Your task to perform on an android device: turn on location history Image 0: 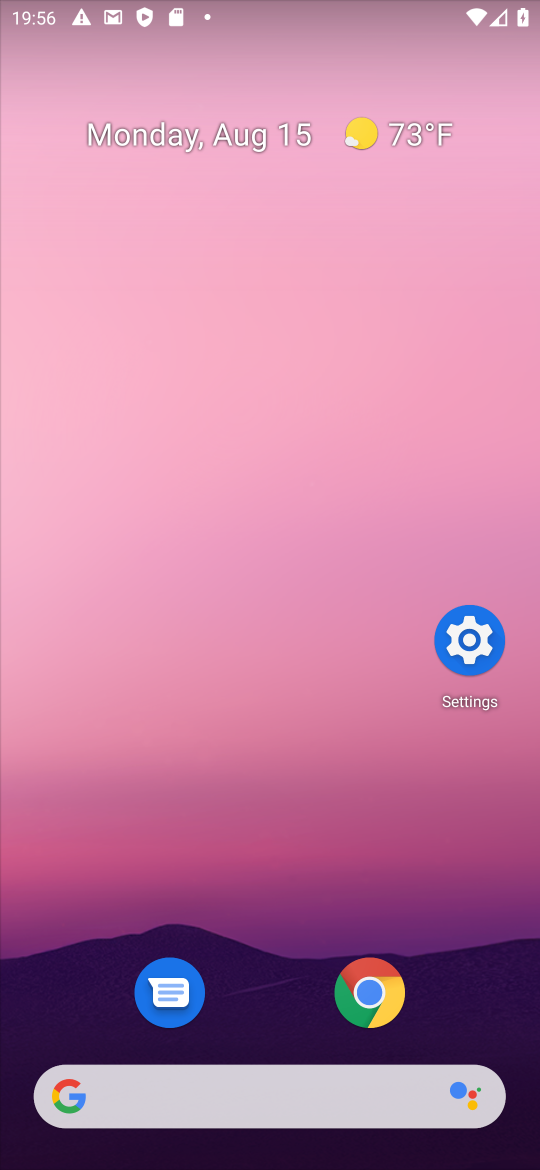
Step 0: click (477, 634)
Your task to perform on an android device: turn on location history Image 1: 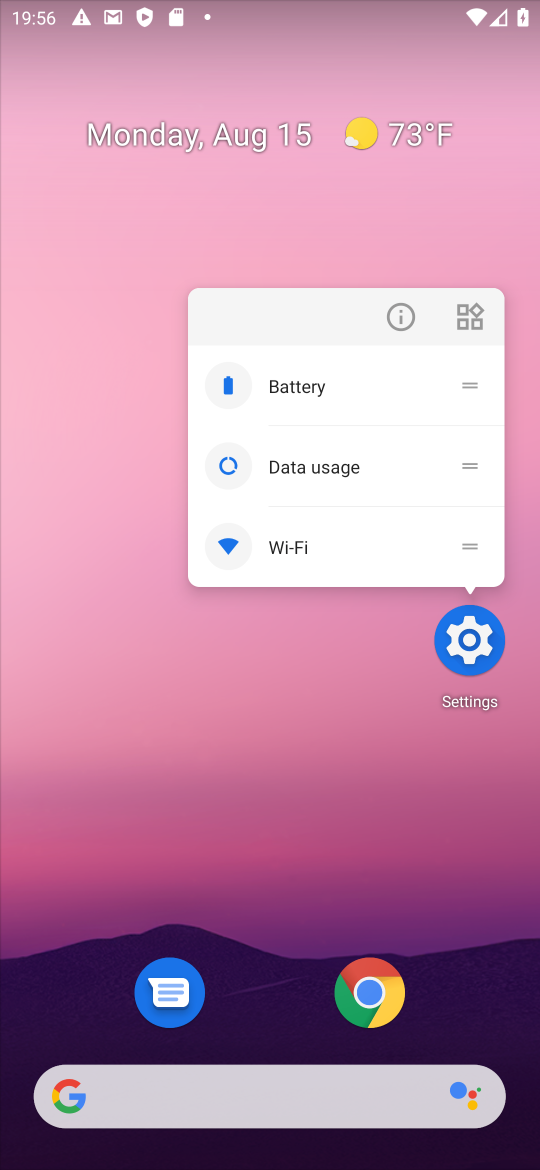
Step 1: click (475, 634)
Your task to perform on an android device: turn on location history Image 2: 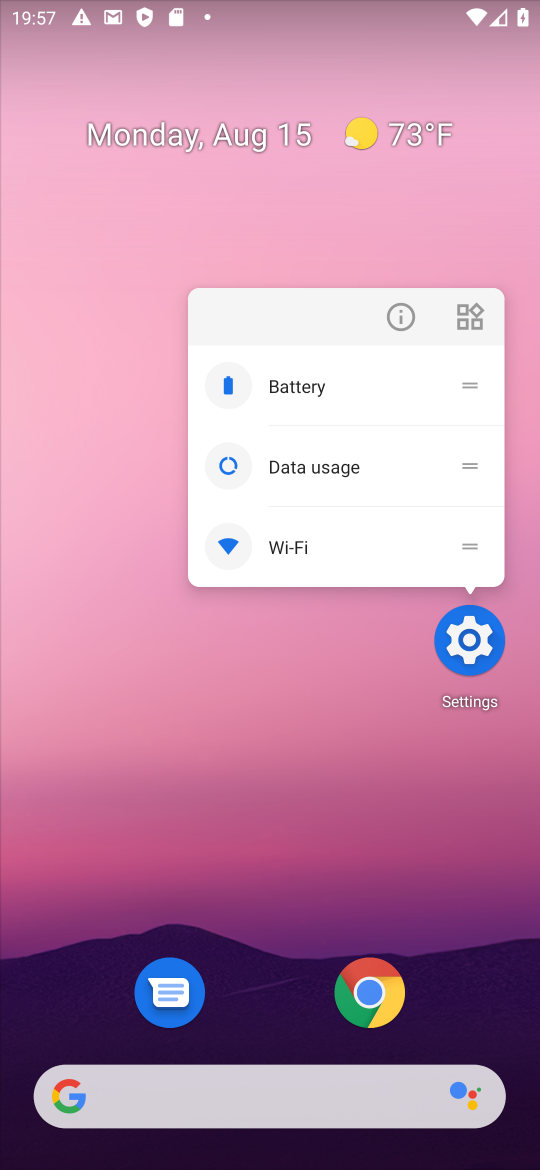
Step 2: click (475, 635)
Your task to perform on an android device: turn on location history Image 3: 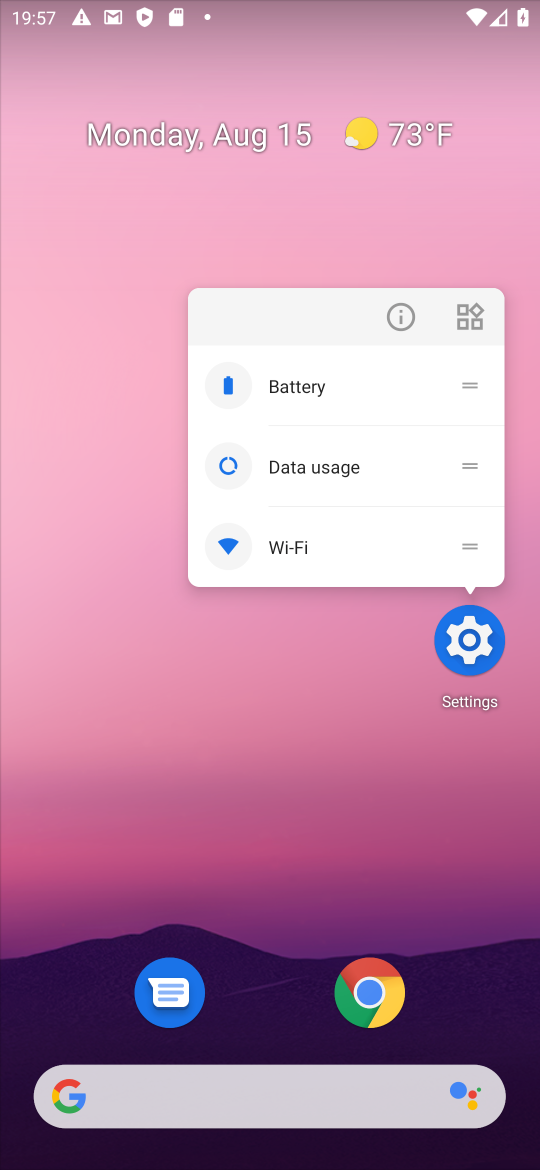
Step 3: click (477, 644)
Your task to perform on an android device: turn on location history Image 4: 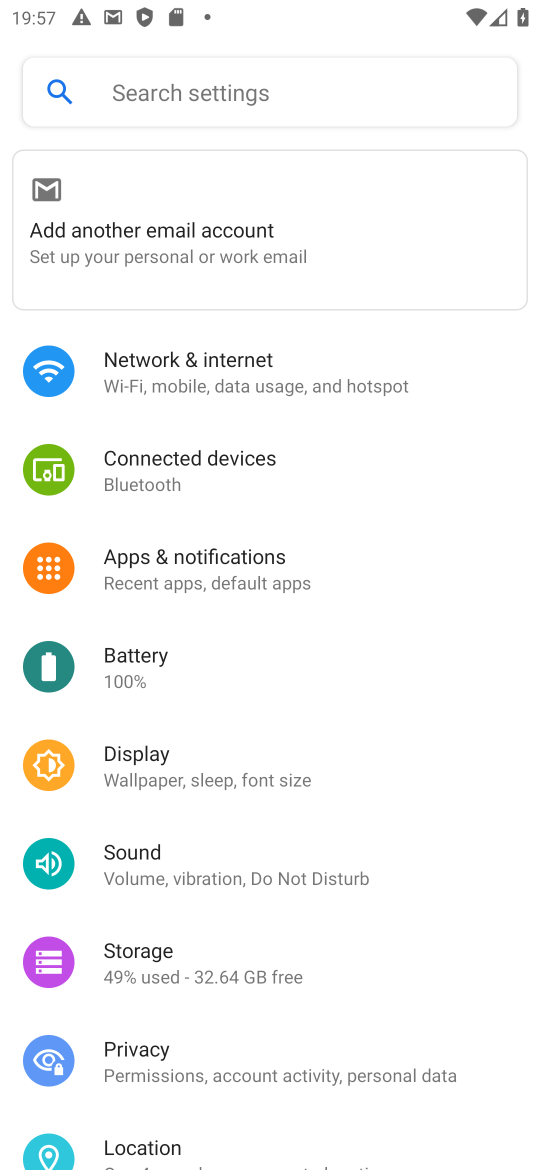
Step 4: drag from (325, 961) to (388, 221)
Your task to perform on an android device: turn on location history Image 5: 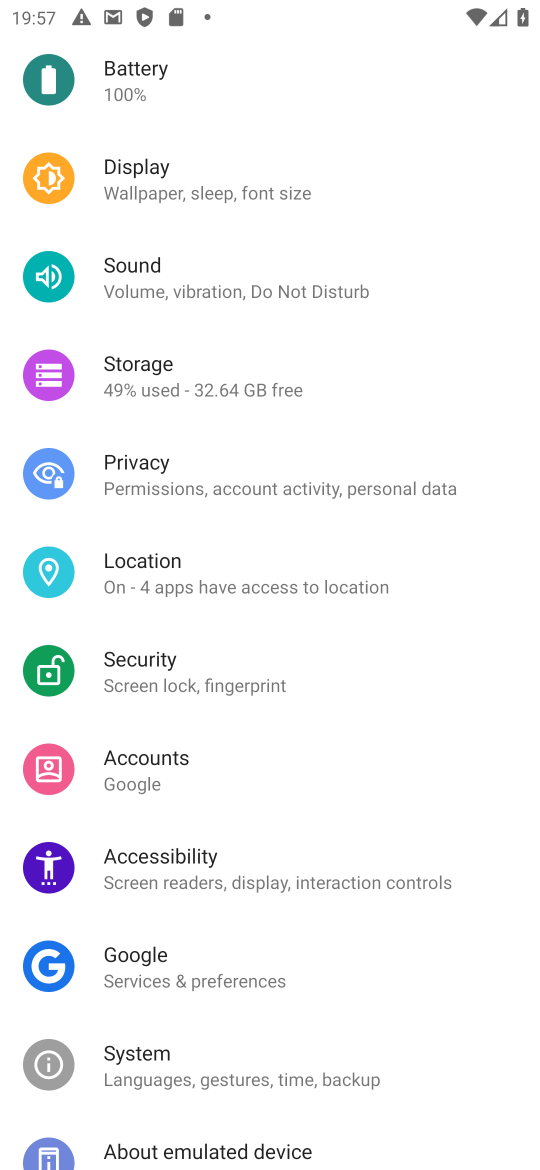
Step 5: click (136, 573)
Your task to perform on an android device: turn on location history Image 6: 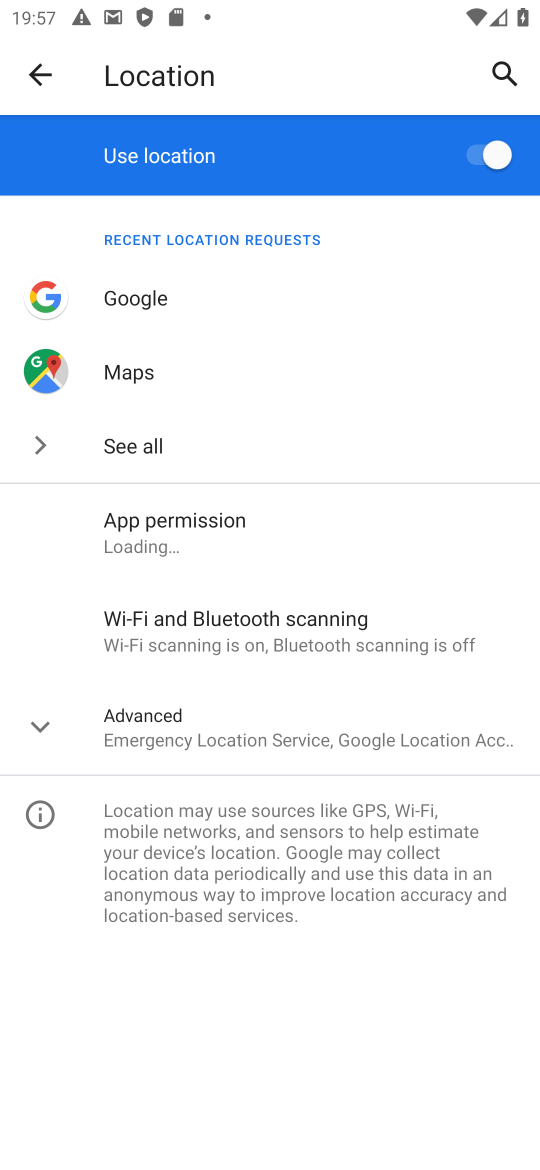
Step 6: click (183, 732)
Your task to perform on an android device: turn on location history Image 7: 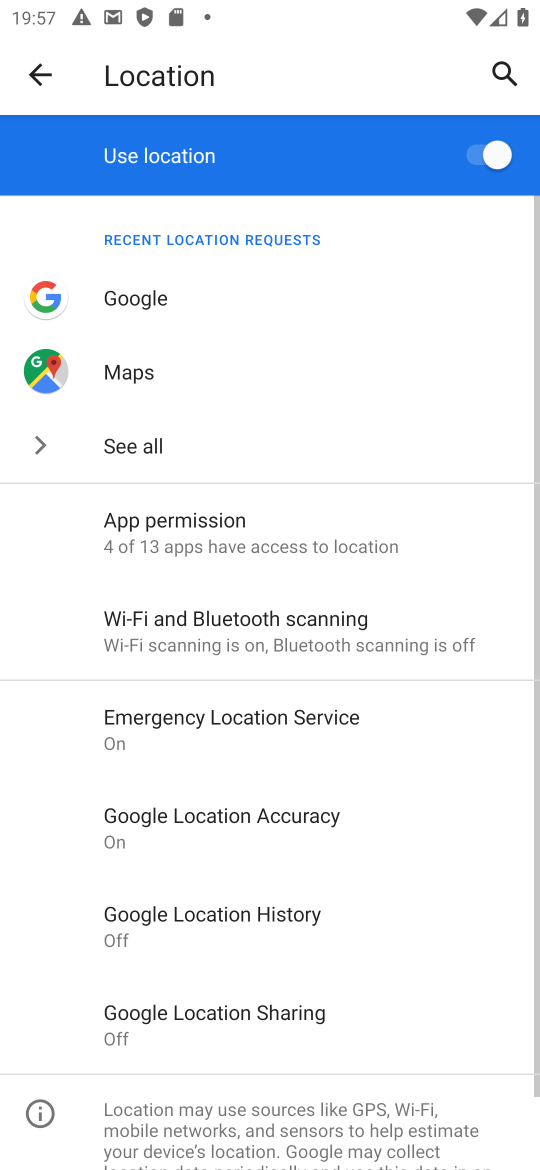
Step 7: click (294, 912)
Your task to perform on an android device: turn on location history Image 8: 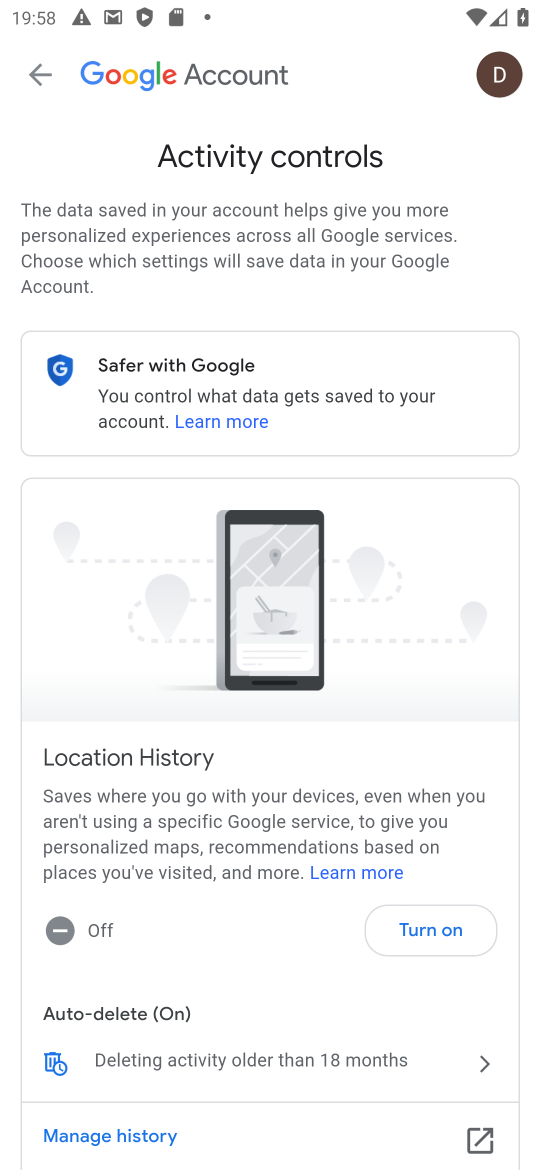
Step 8: click (428, 921)
Your task to perform on an android device: turn on location history Image 9: 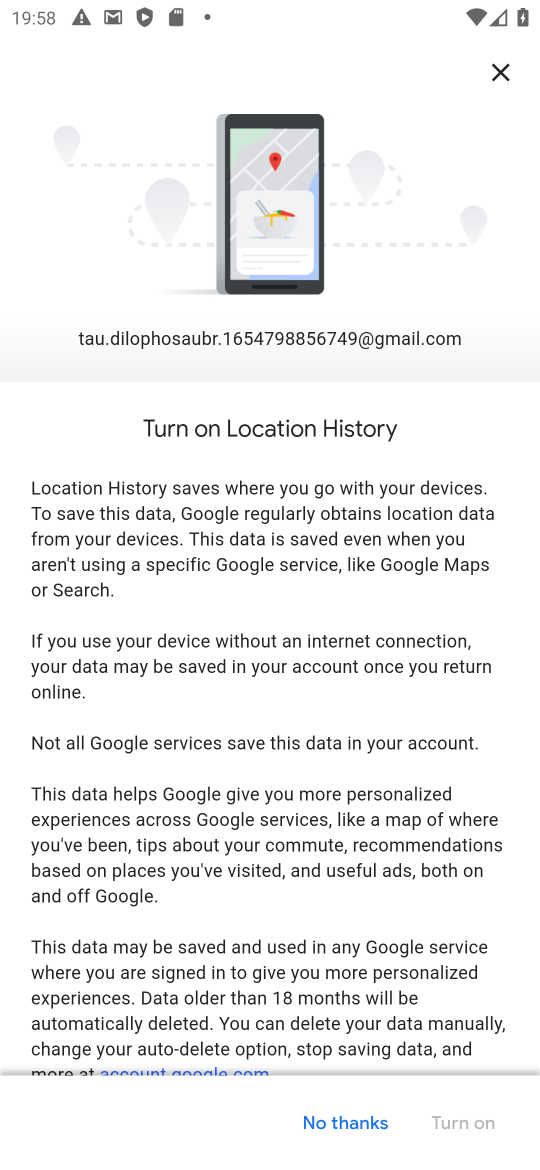
Step 9: drag from (387, 689) to (484, 20)
Your task to perform on an android device: turn on location history Image 10: 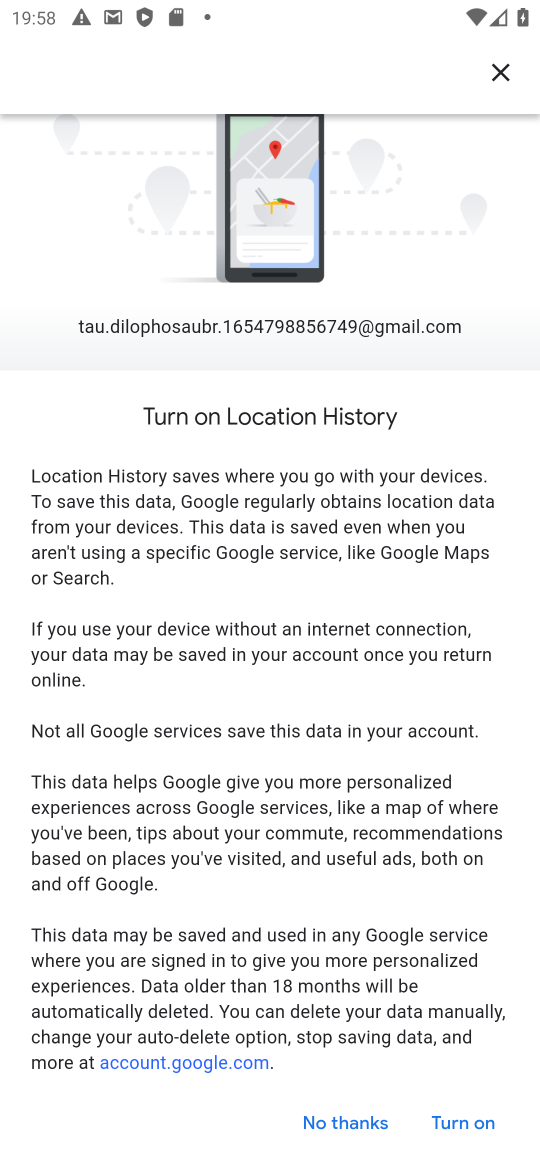
Step 10: drag from (268, 951) to (498, 179)
Your task to perform on an android device: turn on location history Image 11: 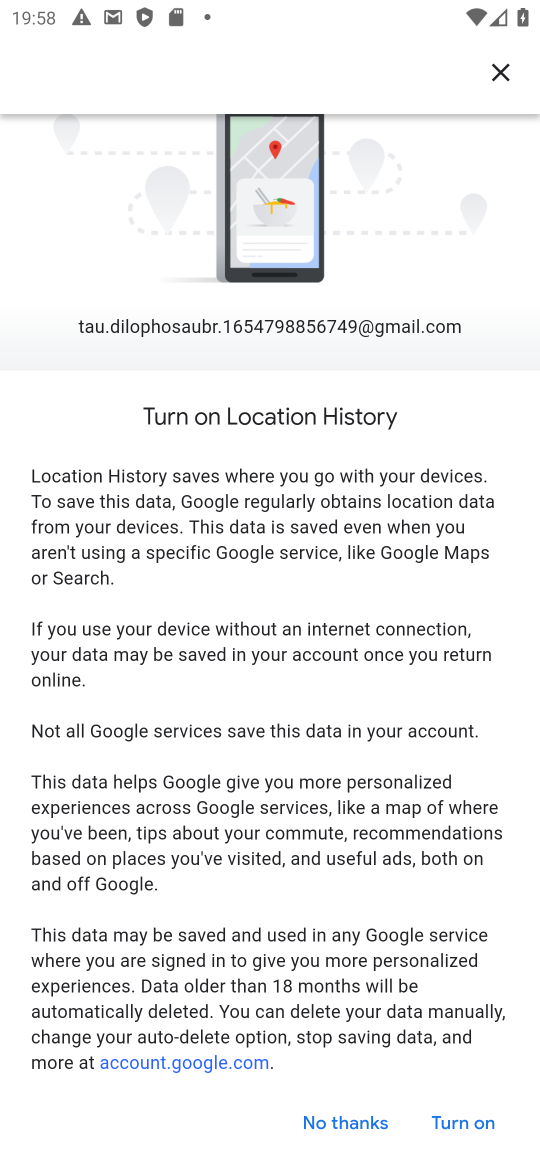
Step 11: click (462, 1119)
Your task to perform on an android device: turn on location history Image 12: 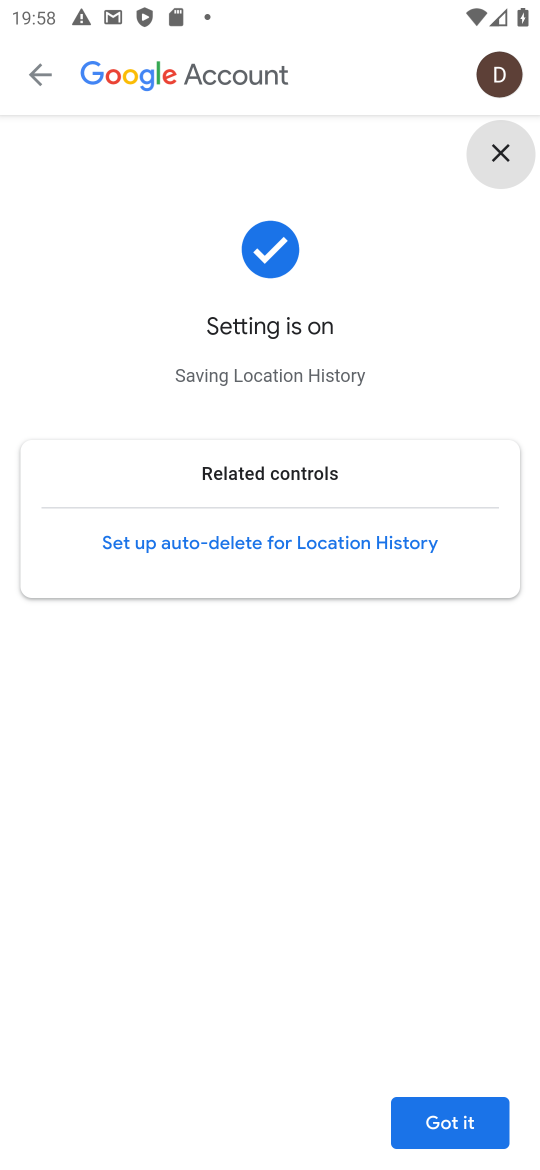
Step 12: click (443, 1119)
Your task to perform on an android device: turn on location history Image 13: 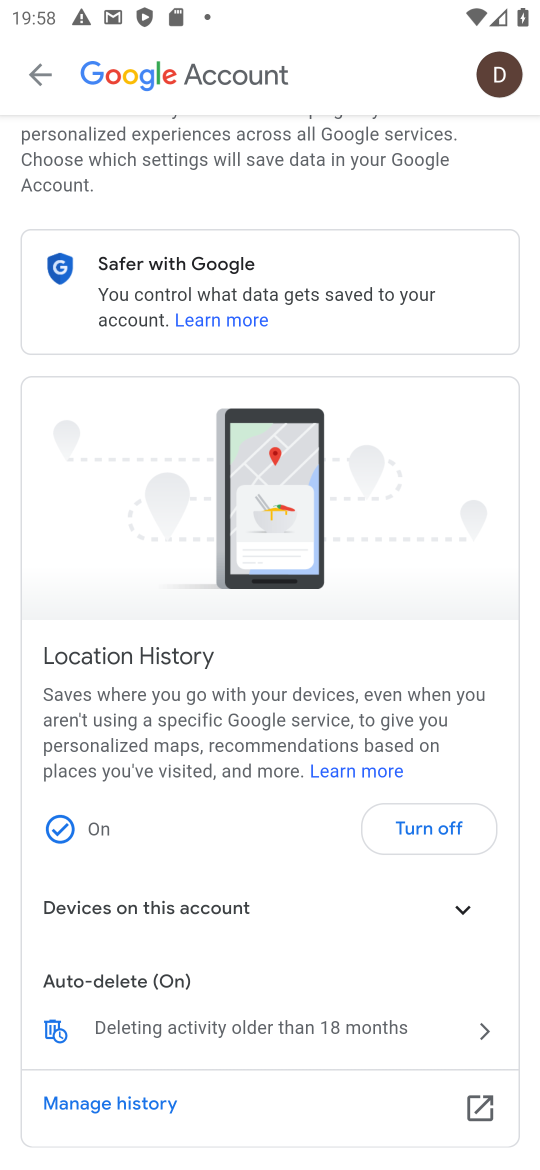
Step 13: task complete